Your task to perform on an android device: turn off data saver in the chrome app Image 0: 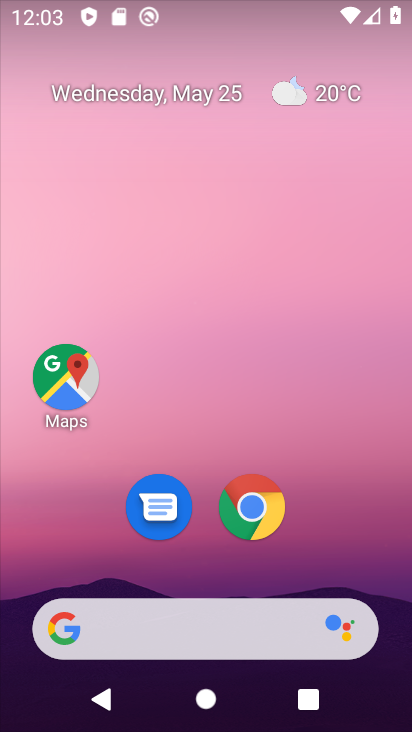
Step 0: drag from (360, 544) to (290, 60)
Your task to perform on an android device: turn off data saver in the chrome app Image 1: 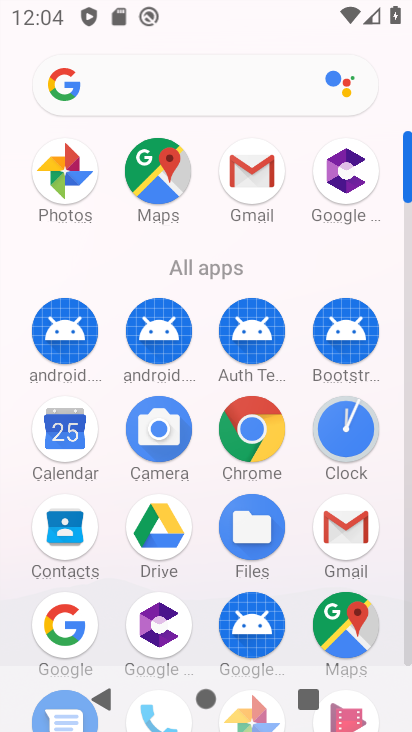
Step 1: click (254, 425)
Your task to perform on an android device: turn off data saver in the chrome app Image 2: 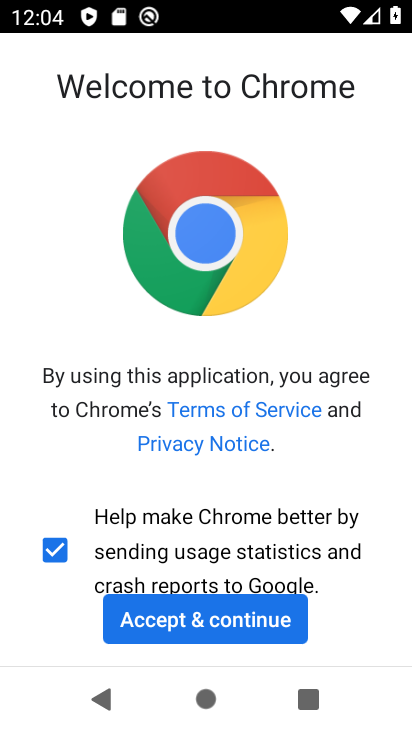
Step 2: click (213, 625)
Your task to perform on an android device: turn off data saver in the chrome app Image 3: 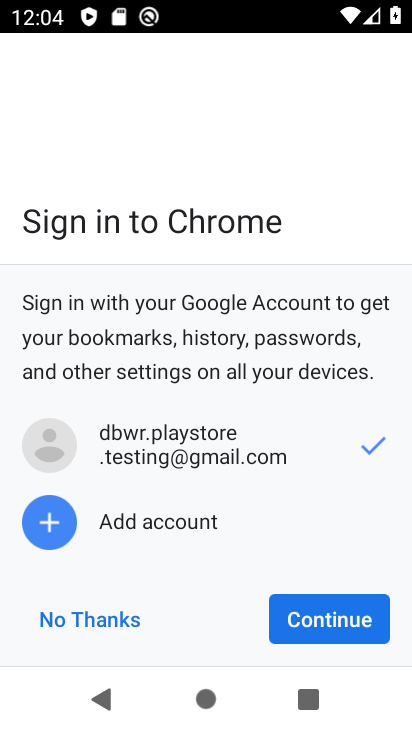
Step 3: click (308, 628)
Your task to perform on an android device: turn off data saver in the chrome app Image 4: 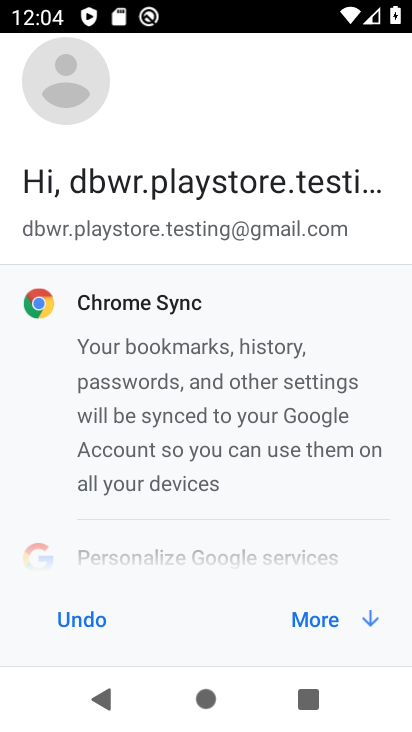
Step 4: click (315, 617)
Your task to perform on an android device: turn off data saver in the chrome app Image 5: 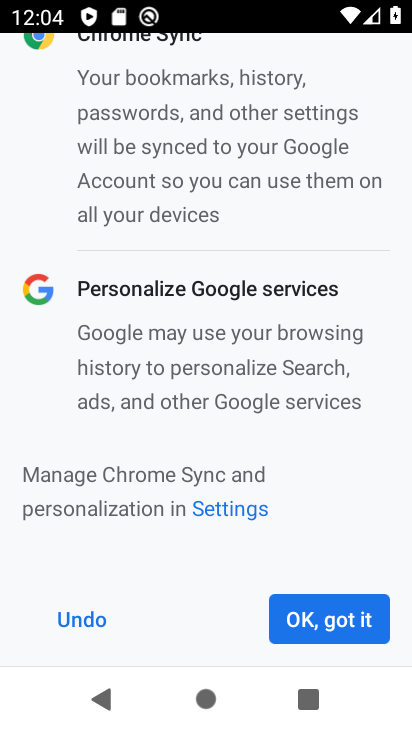
Step 5: click (320, 627)
Your task to perform on an android device: turn off data saver in the chrome app Image 6: 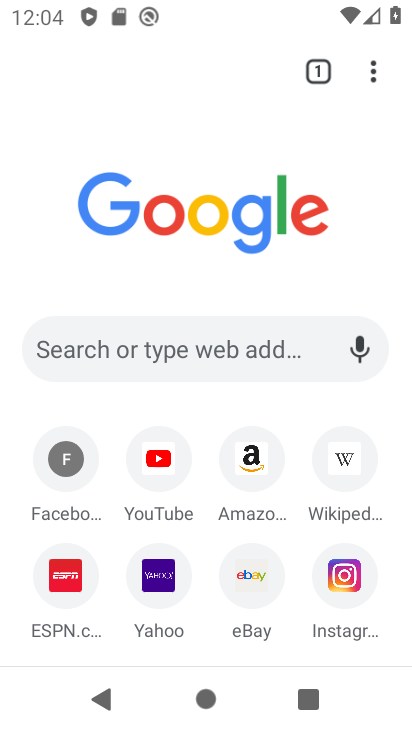
Step 6: drag from (372, 68) to (118, 499)
Your task to perform on an android device: turn off data saver in the chrome app Image 7: 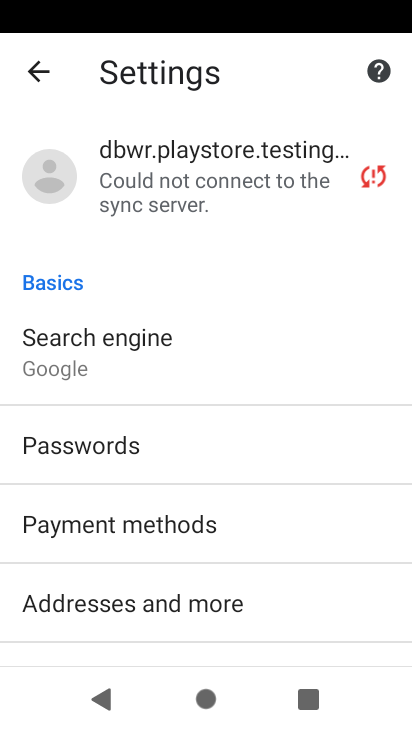
Step 7: drag from (296, 596) to (275, 229)
Your task to perform on an android device: turn off data saver in the chrome app Image 8: 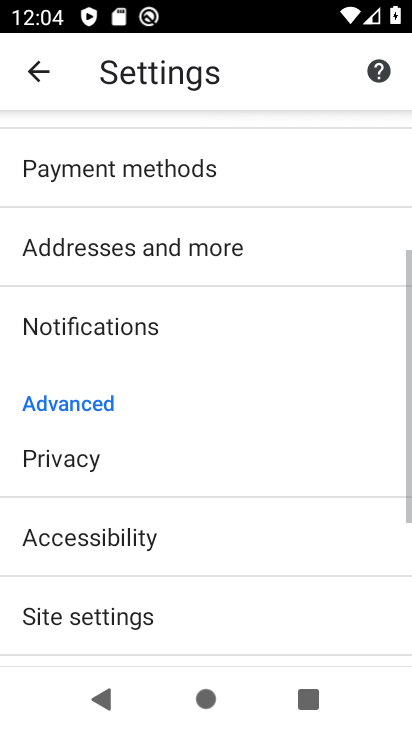
Step 8: drag from (288, 603) to (289, 194)
Your task to perform on an android device: turn off data saver in the chrome app Image 9: 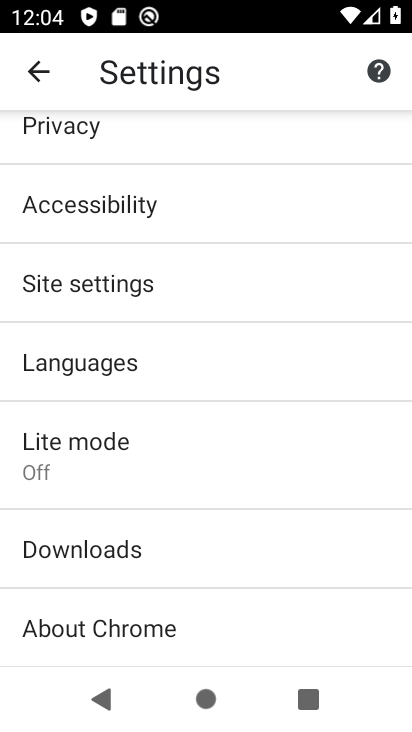
Step 9: click (44, 459)
Your task to perform on an android device: turn off data saver in the chrome app Image 10: 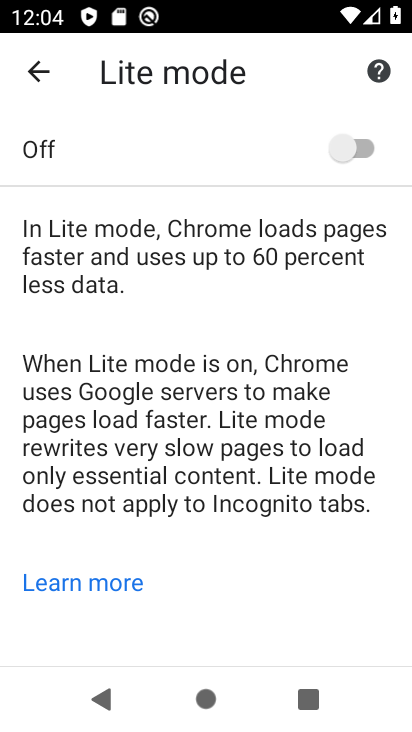
Step 10: task complete